Your task to perform on an android device: open app "Nova Launcher" Image 0: 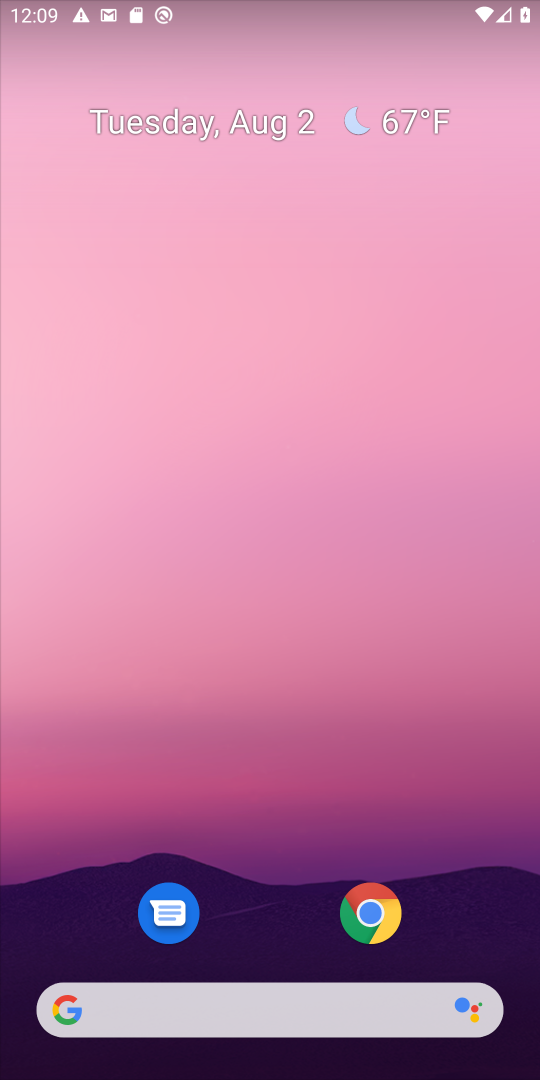
Step 0: drag from (526, 450) to (490, 204)
Your task to perform on an android device: open app "Nova Launcher" Image 1: 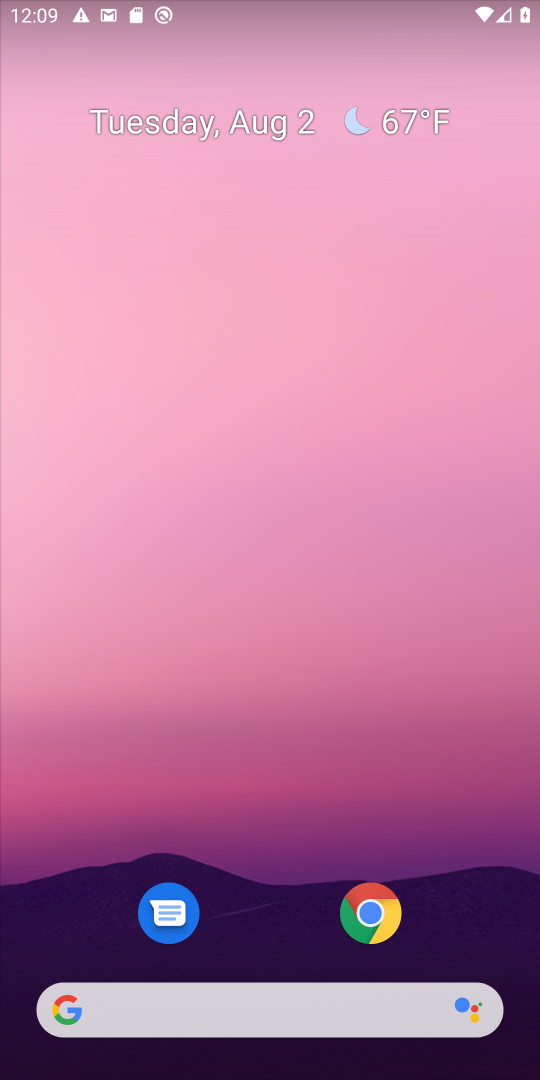
Step 1: drag from (504, 955) to (430, 194)
Your task to perform on an android device: open app "Nova Launcher" Image 2: 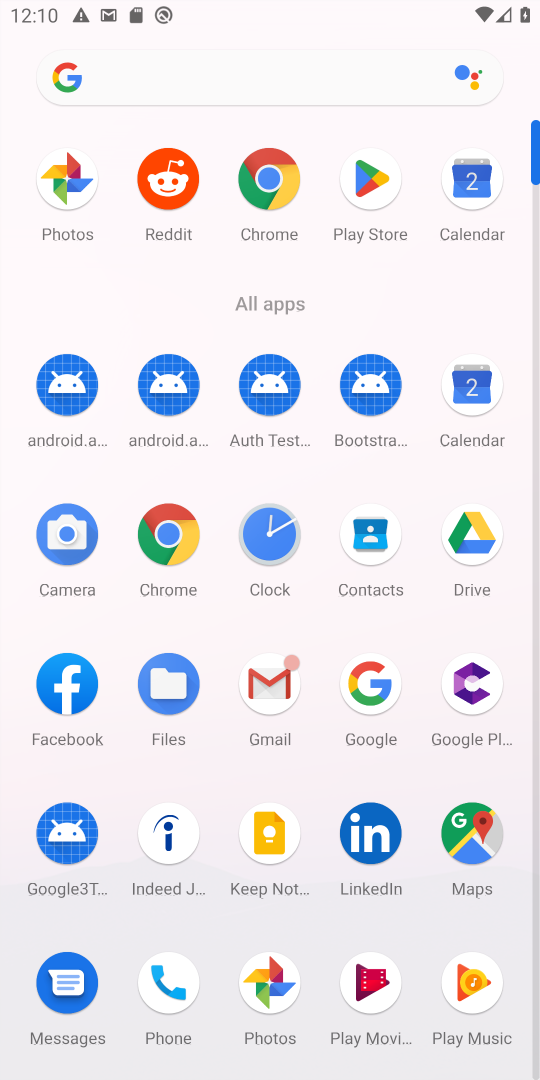
Step 2: click (358, 184)
Your task to perform on an android device: open app "Nova Launcher" Image 3: 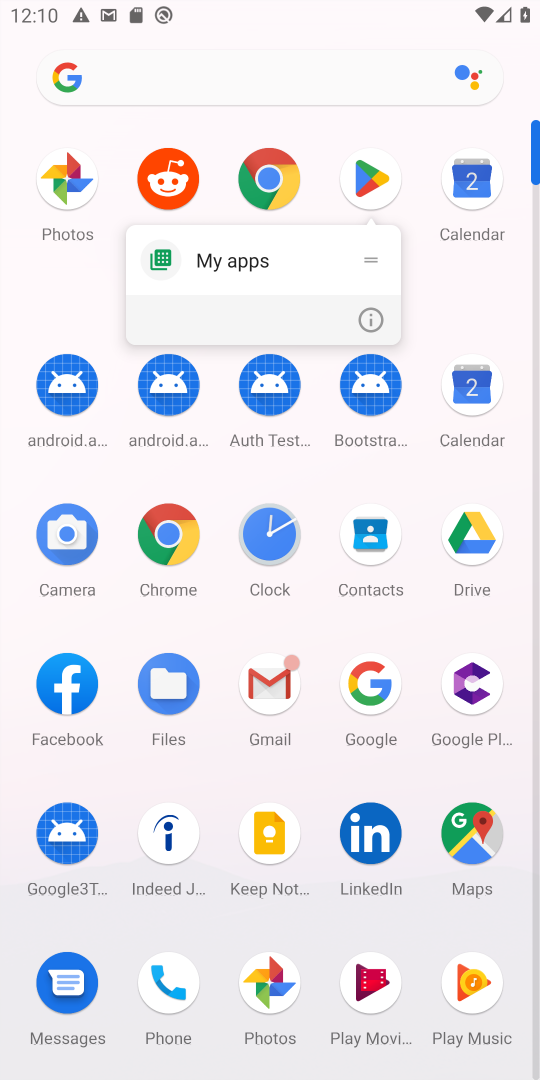
Step 3: click (367, 186)
Your task to perform on an android device: open app "Nova Launcher" Image 4: 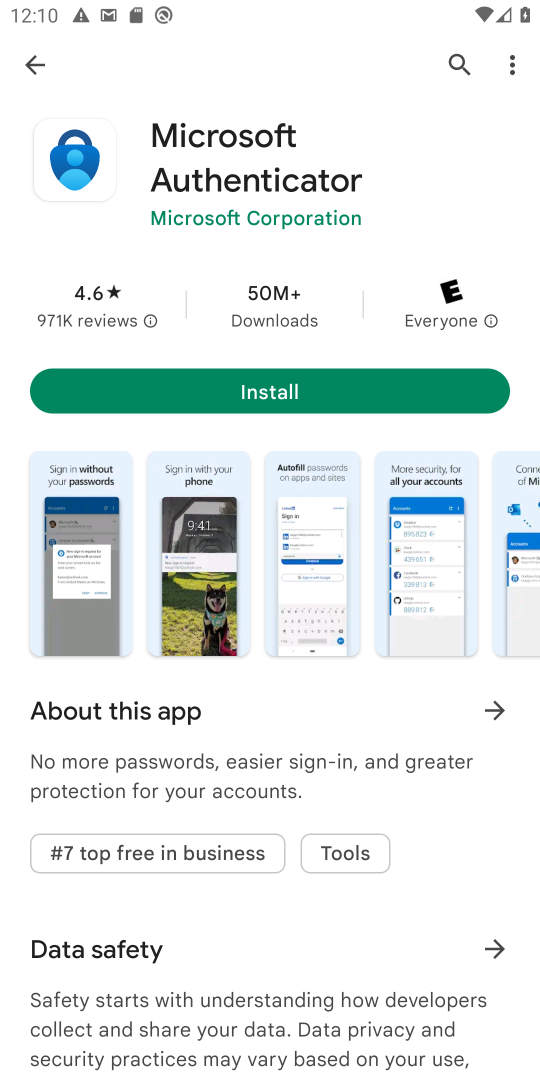
Step 4: click (470, 60)
Your task to perform on an android device: open app "Nova Launcher" Image 5: 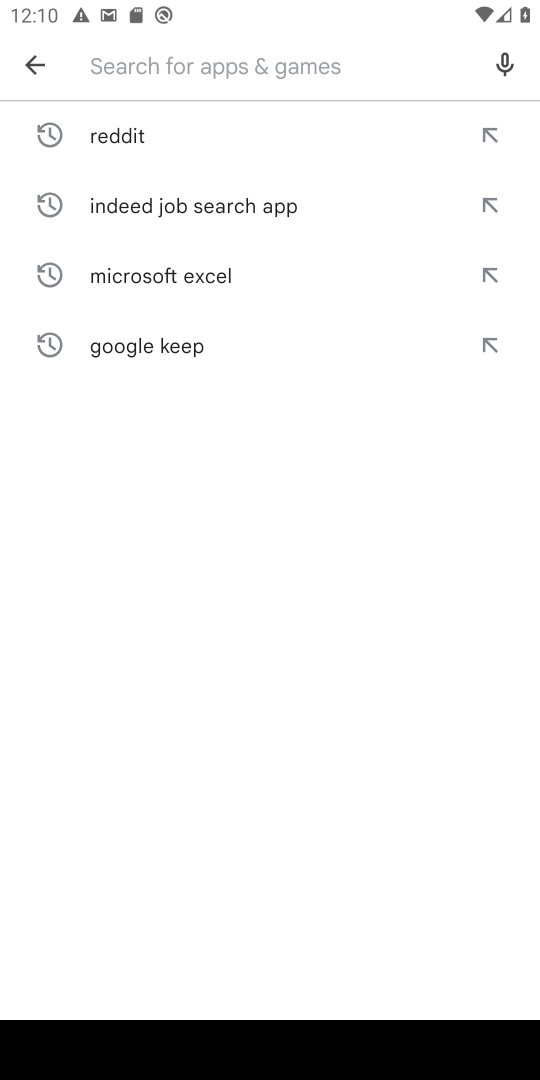
Step 5: type "Nova Launcher"
Your task to perform on an android device: open app "Nova Launcher" Image 6: 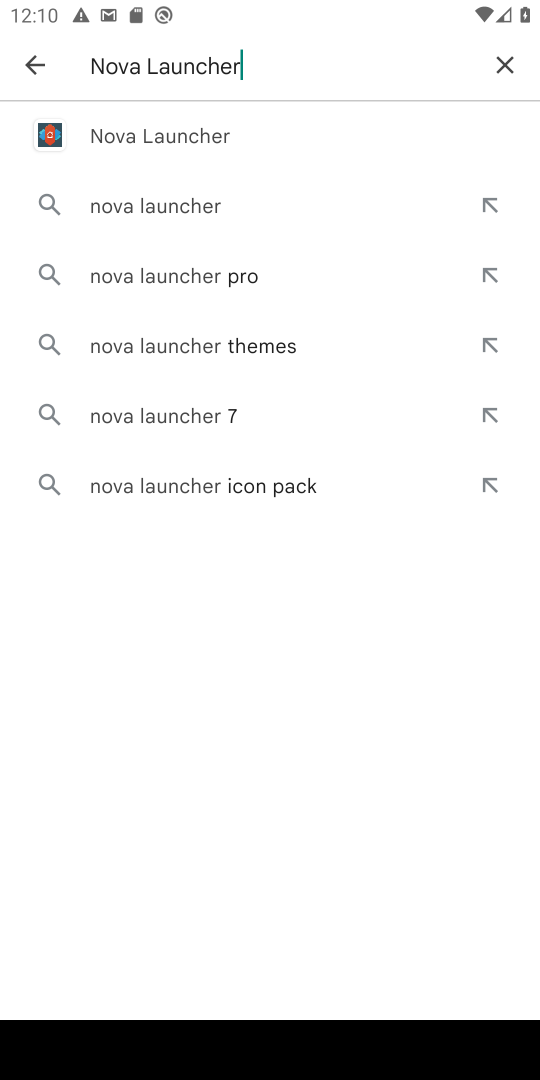
Step 6: click (137, 132)
Your task to perform on an android device: open app "Nova Launcher" Image 7: 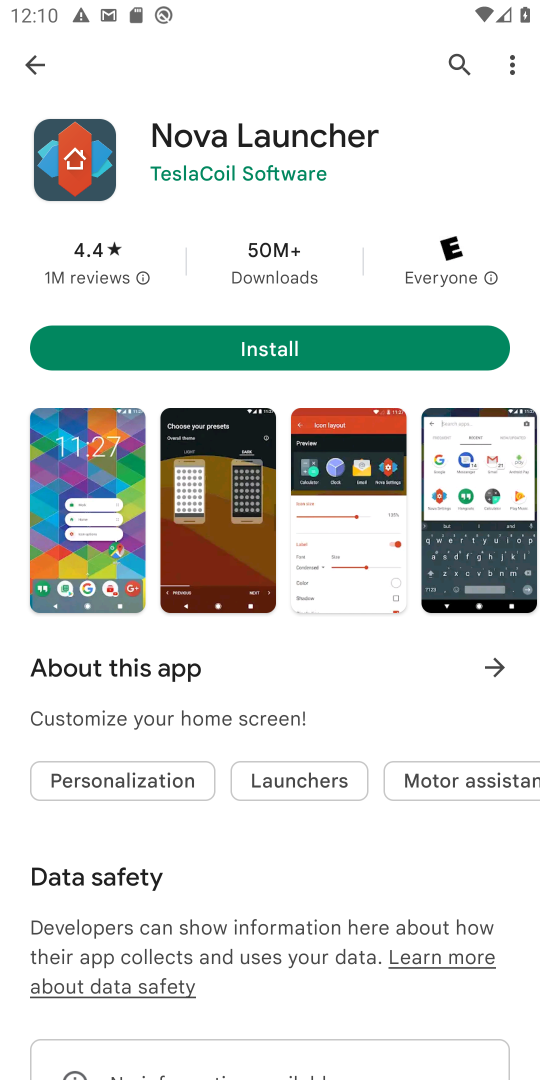
Step 7: task complete